Your task to perform on an android device: Go to privacy settings Image 0: 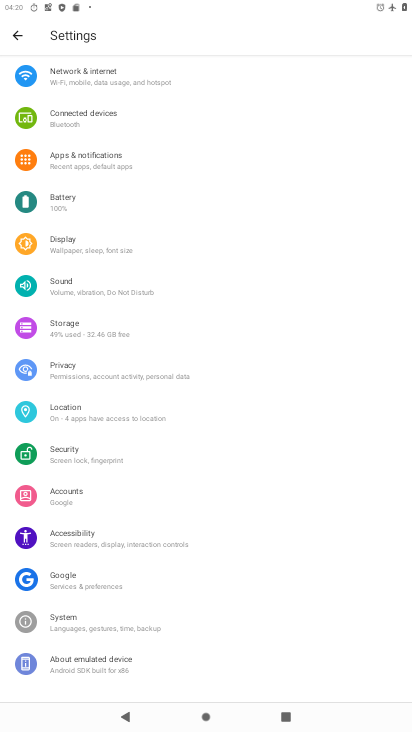
Step 0: click (84, 366)
Your task to perform on an android device: Go to privacy settings Image 1: 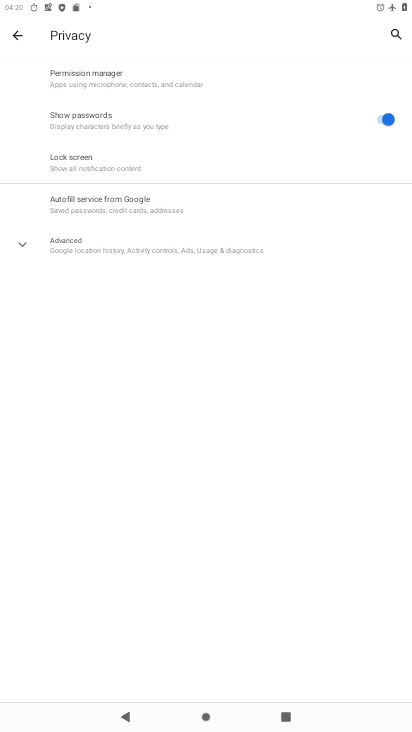
Step 1: task complete